Your task to perform on an android device: empty trash in the gmail app Image 0: 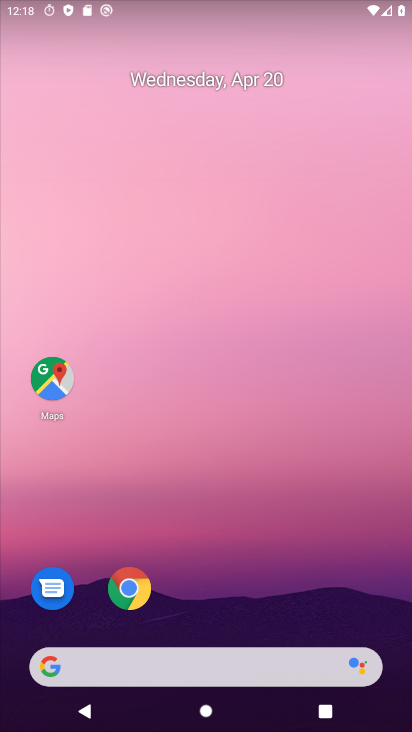
Step 0: click (145, 69)
Your task to perform on an android device: empty trash in the gmail app Image 1: 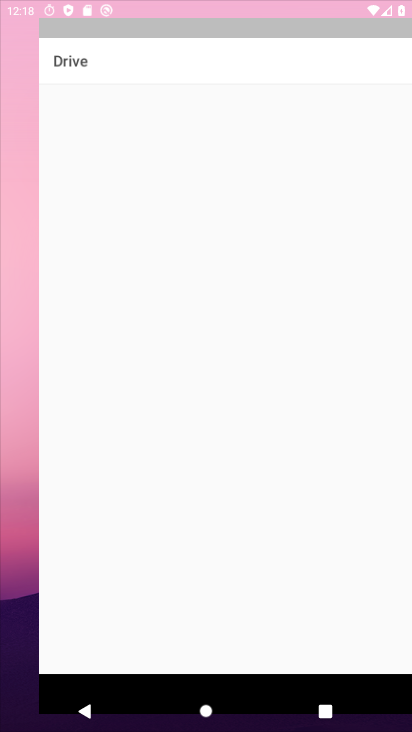
Step 1: press home button
Your task to perform on an android device: empty trash in the gmail app Image 2: 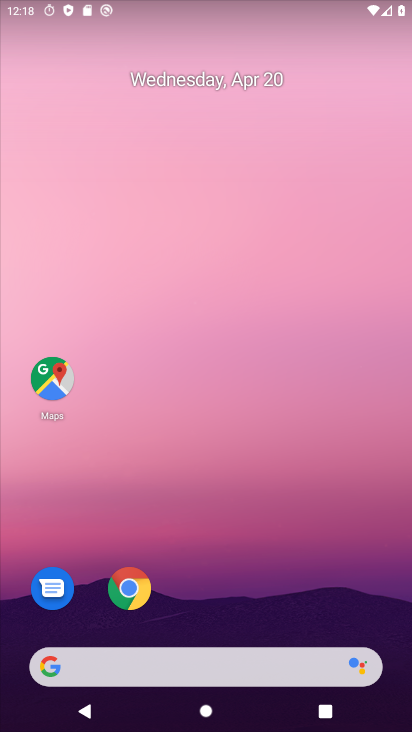
Step 2: drag from (236, 646) to (185, 13)
Your task to perform on an android device: empty trash in the gmail app Image 3: 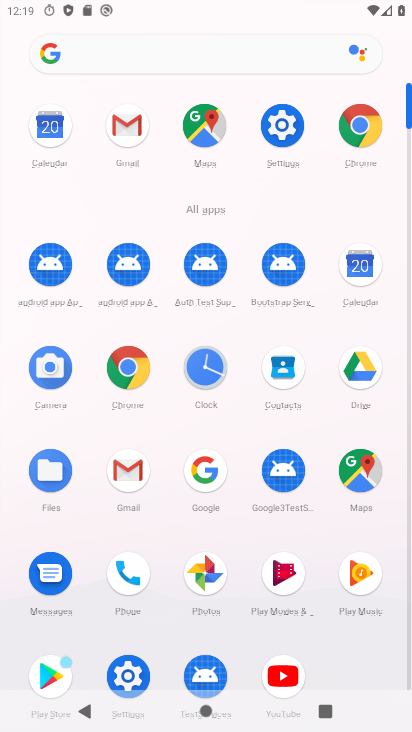
Step 3: click (119, 483)
Your task to perform on an android device: empty trash in the gmail app Image 4: 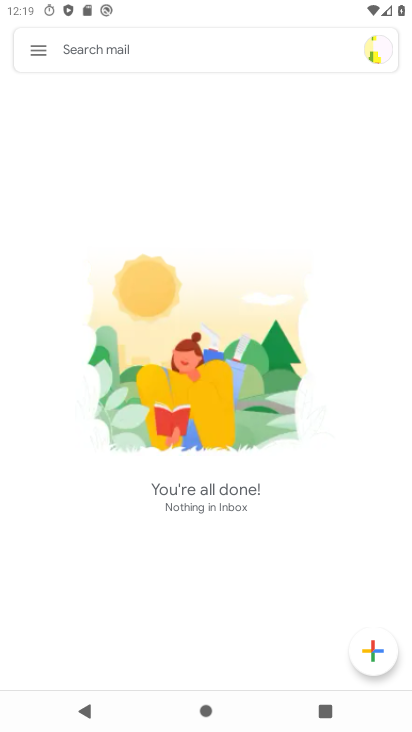
Step 4: click (41, 44)
Your task to perform on an android device: empty trash in the gmail app Image 5: 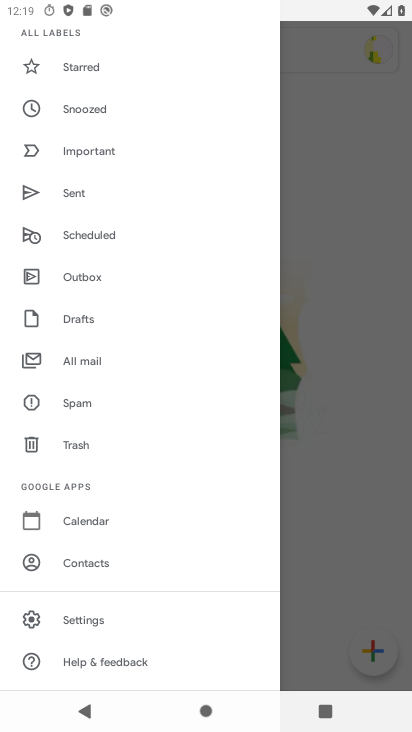
Step 5: click (83, 437)
Your task to perform on an android device: empty trash in the gmail app Image 6: 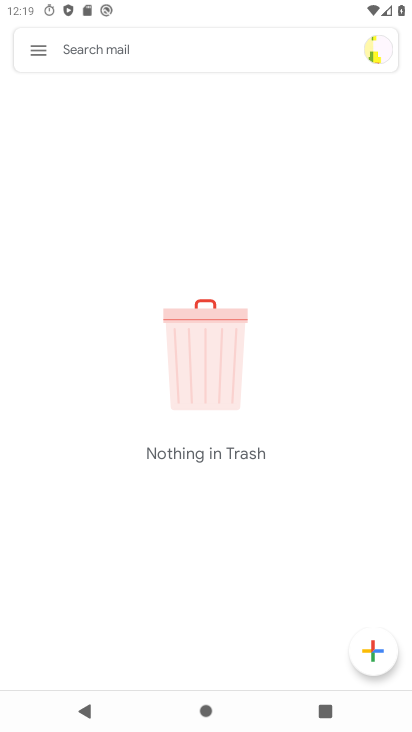
Step 6: task complete